Your task to perform on an android device: Open Google Maps and go to "Timeline" Image 0: 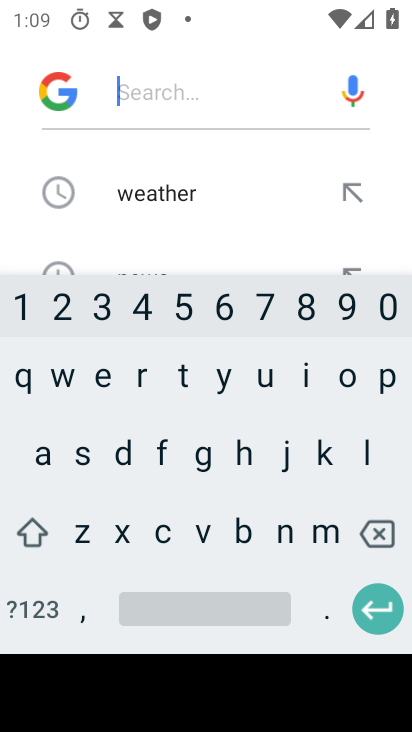
Step 0: press back button
Your task to perform on an android device: Open Google Maps and go to "Timeline" Image 1: 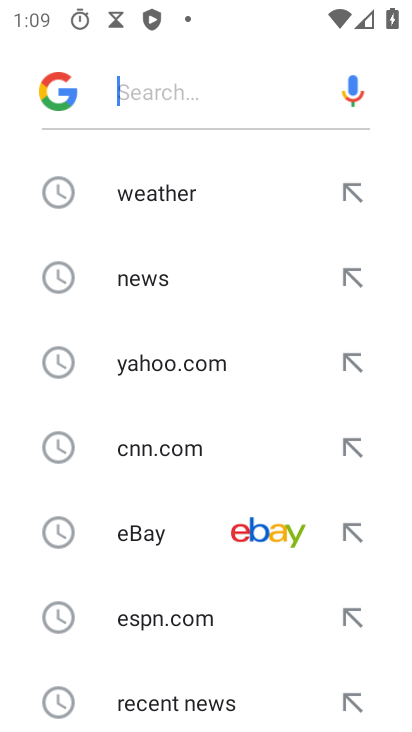
Step 1: press back button
Your task to perform on an android device: Open Google Maps and go to "Timeline" Image 2: 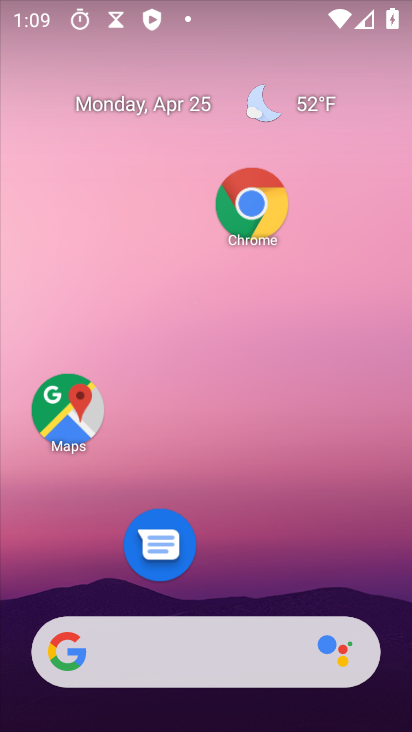
Step 2: drag from (311, 657) to (339, 169)
Your task to perform on an android device: Open Google Maps and go to "Timeline" Image 3: 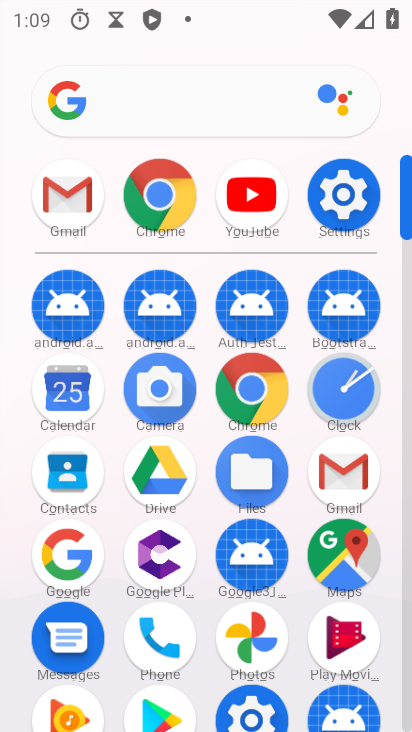
Step 3: click (352, 549)
Your task to perform on an android device: Open Google Maps and go to "Timeline" Image 4: 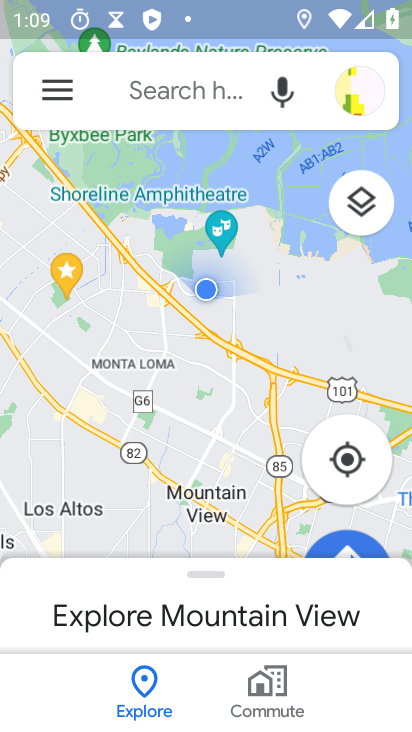
Step 4: click (63, 99)
Your task to perform on an android device: Open Google Maps and go to "Timeline" Image 5: 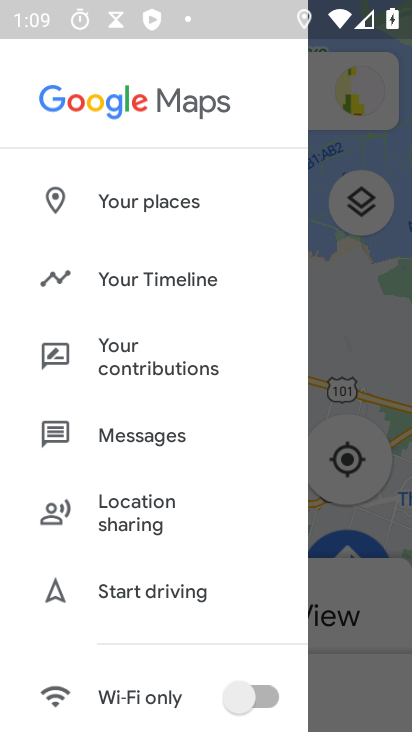
Step 5: click (115, 275)
Your task to perform on an android device: Open Google Maps and go to "Timeline" Image 6: 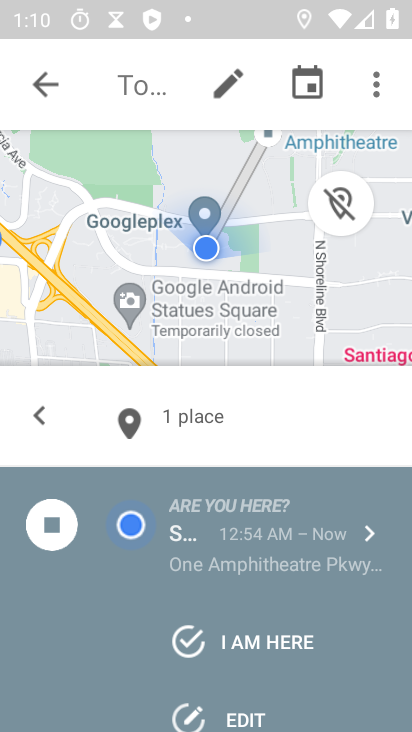
Step 6: task complete